Your task to perform on an android device: Open calendar and show me the fourth week of next month Image 0: 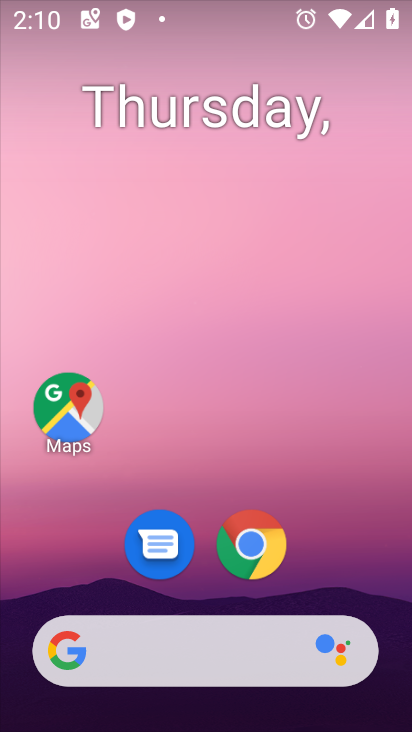
Step 0: drag from (335, 583) to (323, 123)
Your task to perform on an android device: Open calendar and show me the fourth week of next month Image 1: 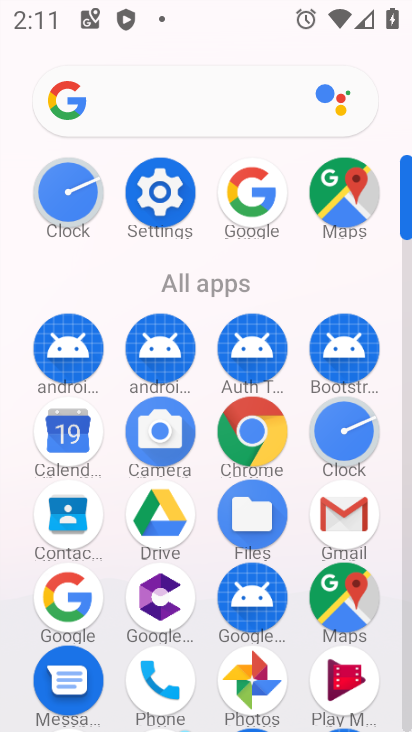
Step 1: click (78, 439)
Your task to perform on an android device: Open calendar and show me the fourth week of next month Image 2: 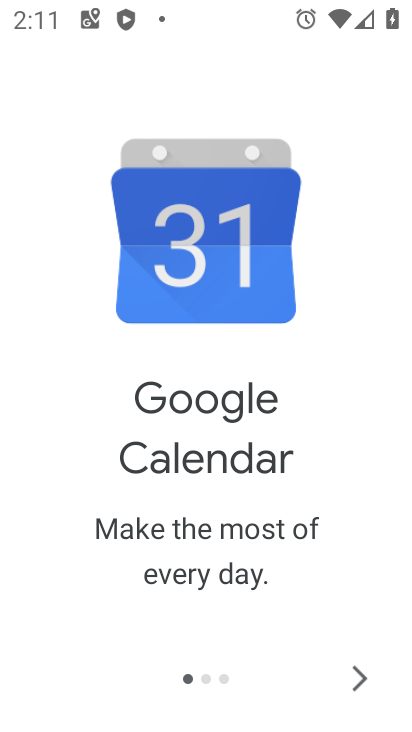
Step 2: click (349, 669)
Your task to perform on an android device: Open calendar and show me the fourth week of next month Image 3: 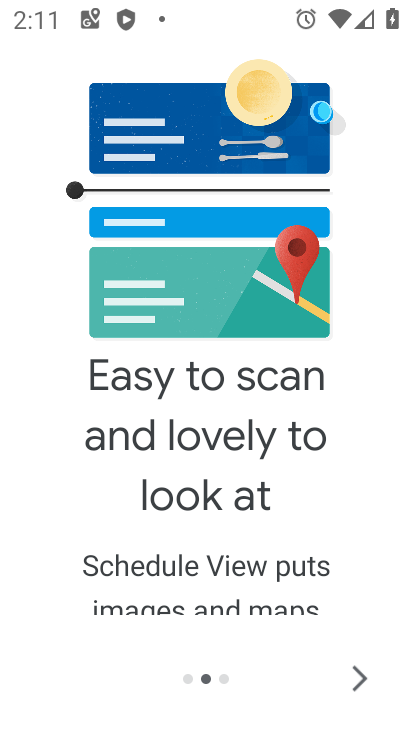
Step 3: click (350, 669)
Your task to perform on an android device: Open calendar and show me the fourth week of next month Image 4: 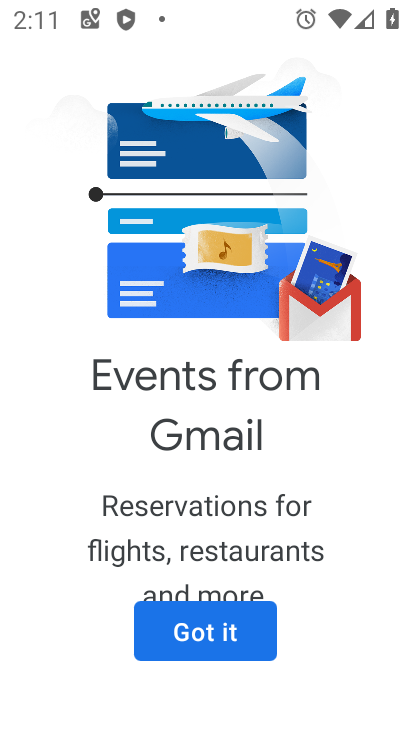
Step 4: click (350, 669)
Your task to perform on an android device: Open calendar and show me the fourth week of next month Image 5: 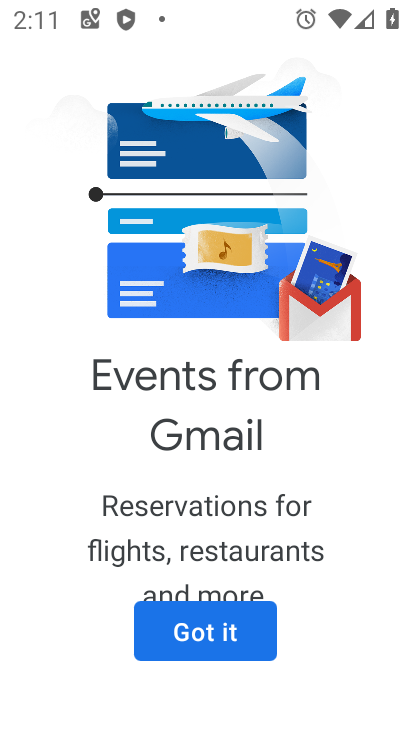
Step 5: click (241, 635)
Your task to perform on an android device: Open calendar and show me the fourth week of next month Image 6: 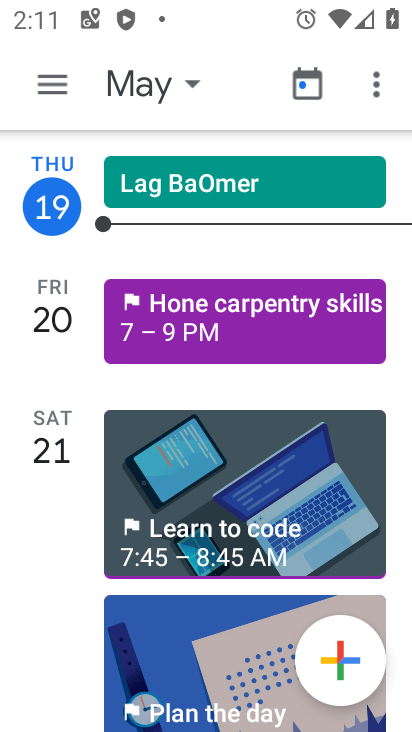
Step 6: click (156, 85)
Your task to perform on an android device: Open calendar and show me the fourth week of next month Image 7: 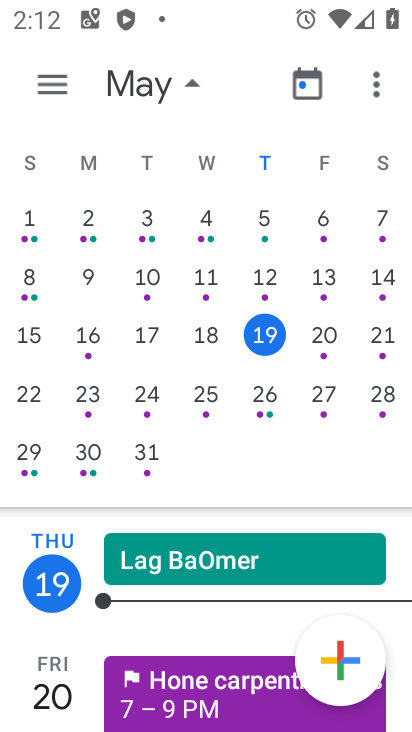
Step 7: drag from (381, 294) to (10, 286)
Your task to perform on an android device: Open calendar and show me the fourth week of next month Image 8: 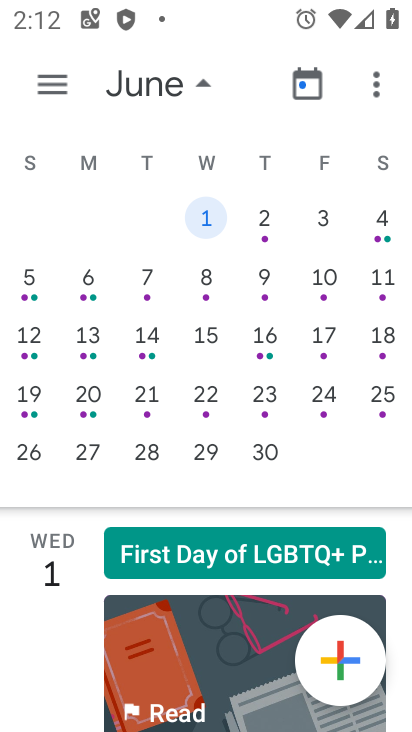
Step 8: click (63, 94)
Your task to perform on an android device: Open calendar and show me the fourth week of next month Image 9: 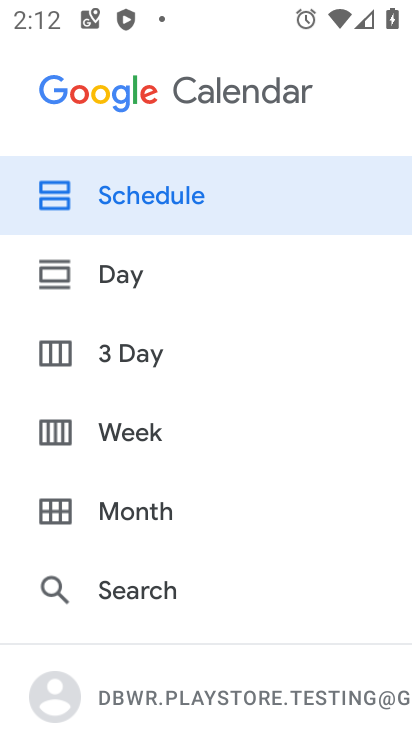
Step 9: click (136, 413)
Your task to perform on an android device: Open calendar and show me the fourth week of next month Image 10: 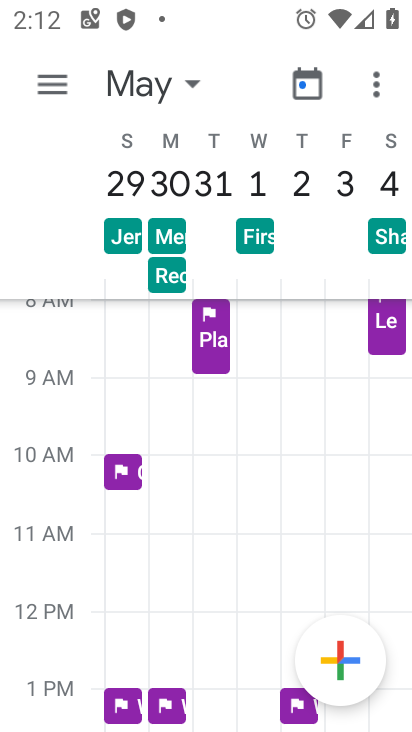
Step 10: task complete